Your task to perform on an android device: turn pop-ups off in chrome Image 0: 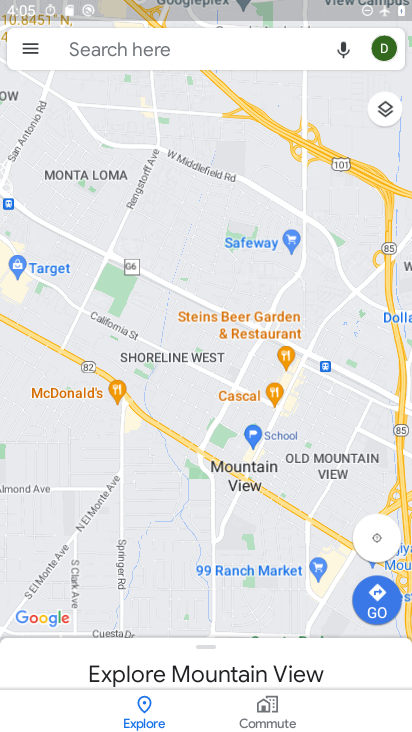
Step 0: press home button
Your task to perform on an android device: turn pop-ups off in chrome Image 1: 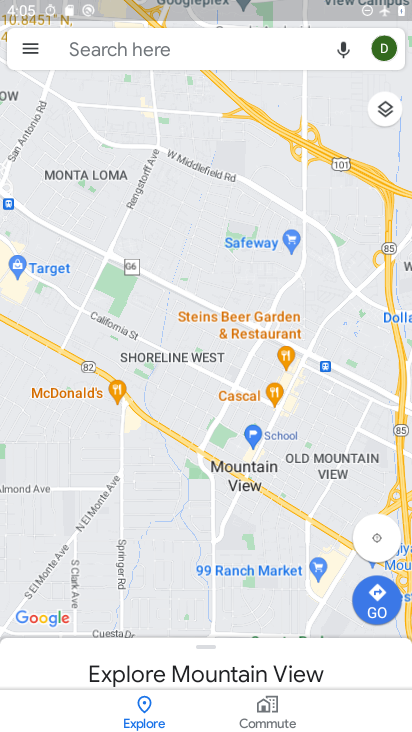
Step 1: press home button
Your task to perform on an android device: turn pop-ups off in chrome Image 2: 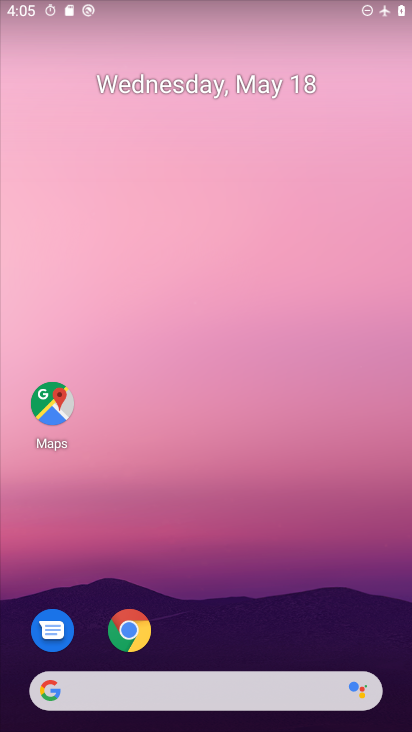
Step 2: click (132, 627)
Your task to perform on an android device: turn pop-ups off in chrome Image 3: 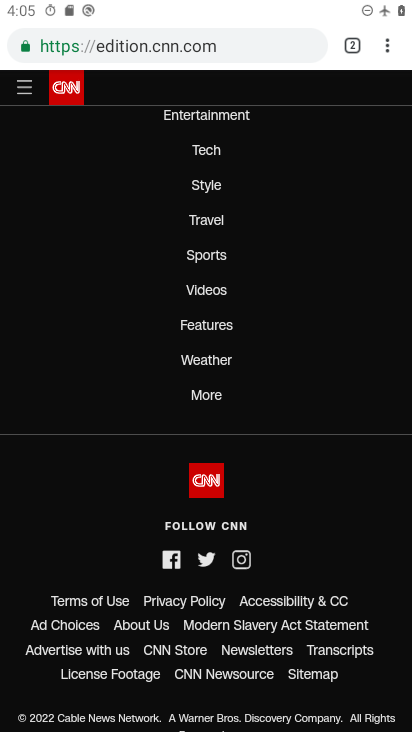
Step 3: click (383, 49)
Your task to perform on an android device: turn pop-ups off in chrome Image 4: 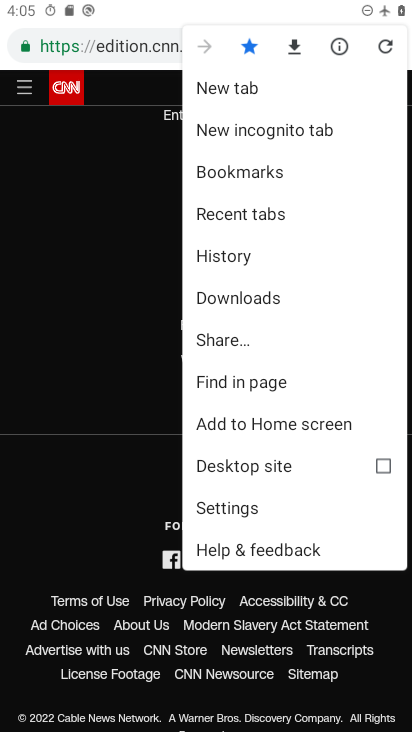
Step 4: click (264, 506)
Your task to perform on an android device: turn pop-ups off in chrome Image 5: 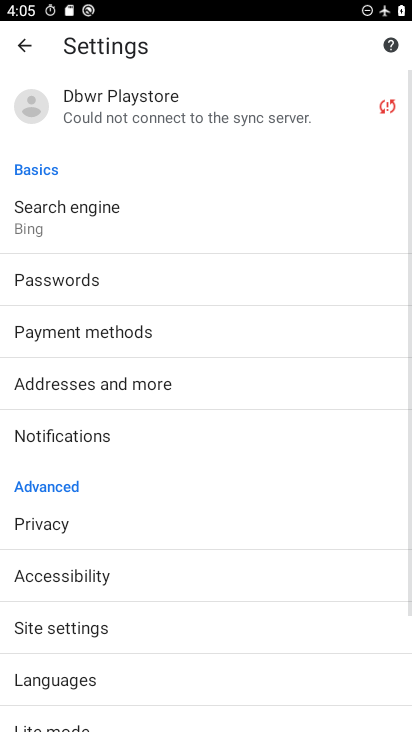
Step 5: drag from (167, 667) to (185, 254)
Your task to perform on an android device: turn pop-ups off in chrome Image 6: 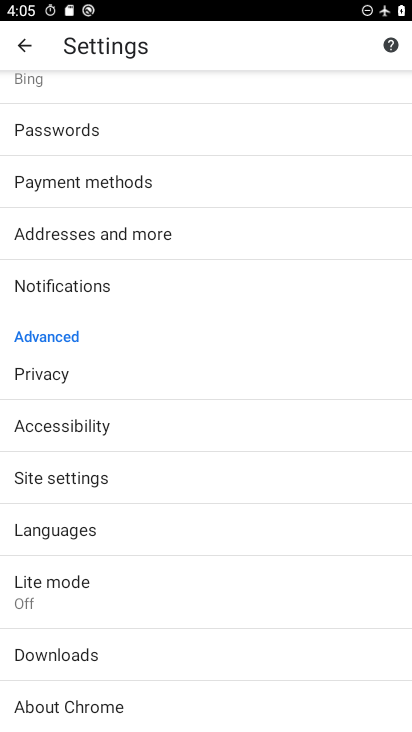
Step 6: click (116, 471)
Your task to perform on an android device: turn pop-ups off in chrome Image 7: 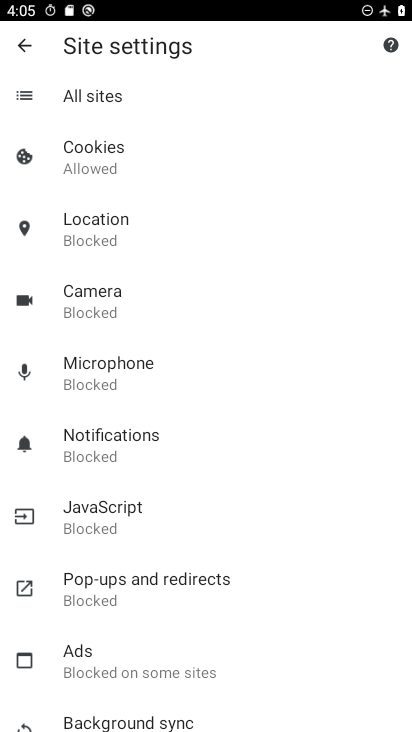
Step 7: click (175, 594)
Your task to perform on an android device: turn pop-ups off in chrome Image 8: 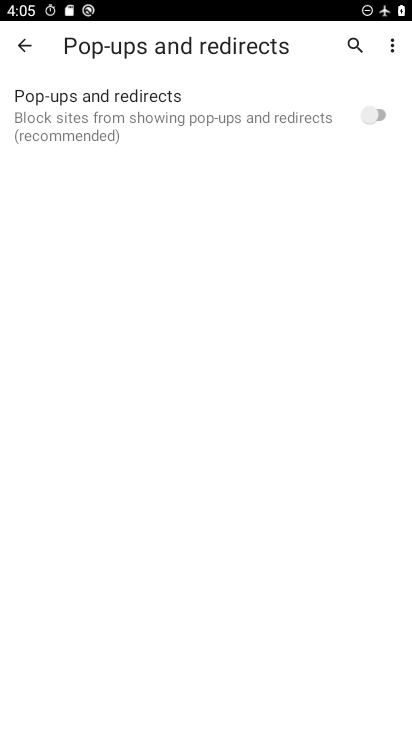
Step 8: task complete